Your task to perform on an android device: Search for "corsair k70" on target.com, select the first entry, add it to the cart, then select checkout. Image 0: 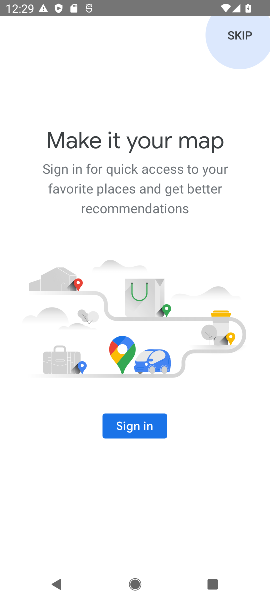
Step 0: press home button
Your task to perform on an android device: Search for "corsair k70" on target.com, select the first entry, add it to the cart, then select checkout. Image 1: 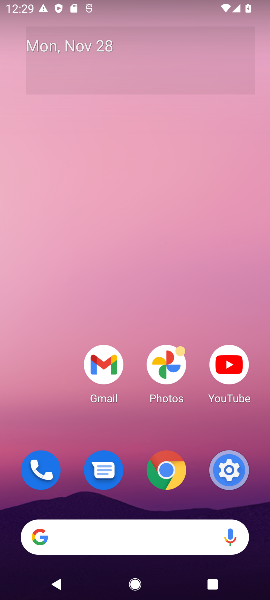
Step 1: click (98, 557)
Your task to perform on an android device: Search for "corsair k70" on target.com, select the first entry, add it to the cart, then select checkout. Image 2: 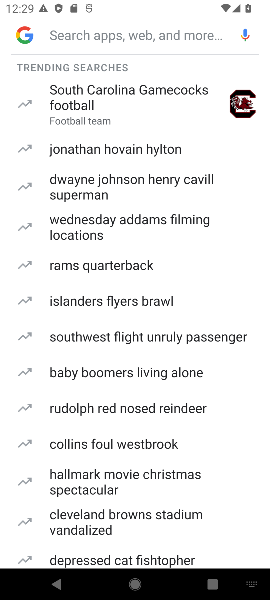
Step 2: type "target"
Your task to perform on an android device: Search for "corsair k70" on target.com, select the first entry, add it to the cart, then select checkout. Image 3: 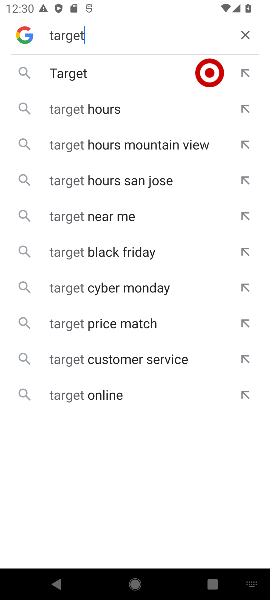
Step 3: click (62, 71)
Your task to perform on an android device: Search for "corsair k70" on target.com, select the first entry, add it to the cart, then select checkout. Image 4: 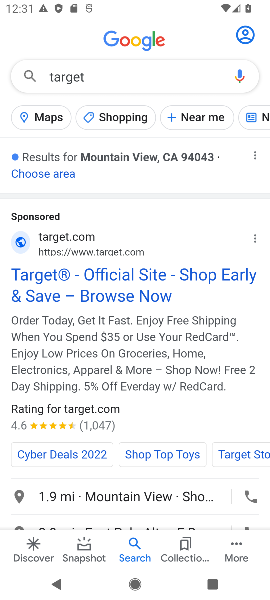
Step 4: click (115, 306)
Your task to perform on an android device: Search for "corsair k70" on target.com, select the first entry, add it to the cart, then select checkout. Image 5: 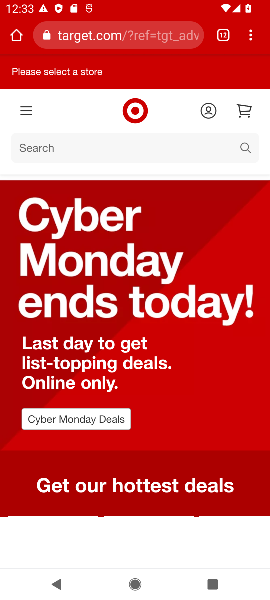
Step 5: click (77, 150)
Your task to perform on an android device: Search for "corsair k70" on target.com, select the first entry, add it to the cart, then select checkout. Image 6: 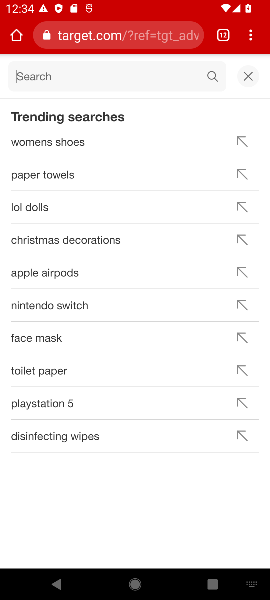
Step 6: task complete